Your task to perform on an android device: Show me popular games on the Play Store Image 0: 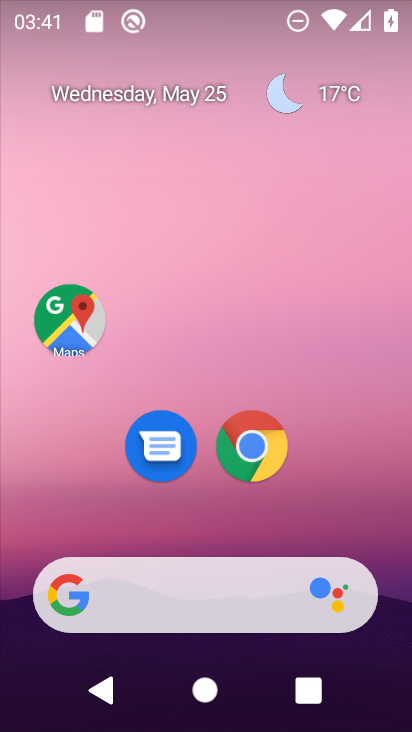
Step 0: drag from (174, 617) to (238, 29)
Your task to perform on an android device: Show me popular games on the Play Store Image 1: 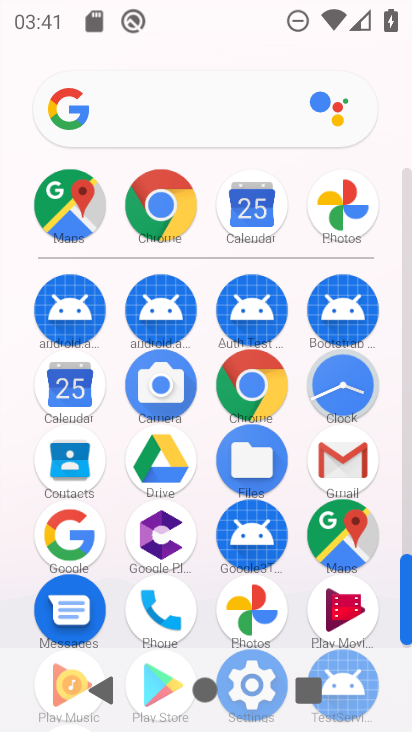
Step 1: drag from (215, 573) to (221, 200)
Your task to perform on an android device: Show me popular games on the Play Store Image 2: 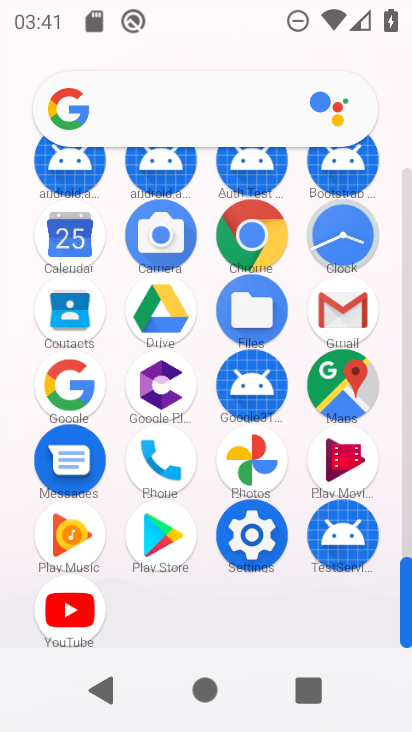
Step 2: click (166, 541)
Your task to perform on an android device: Show me popular games on the Play Store Image 3: 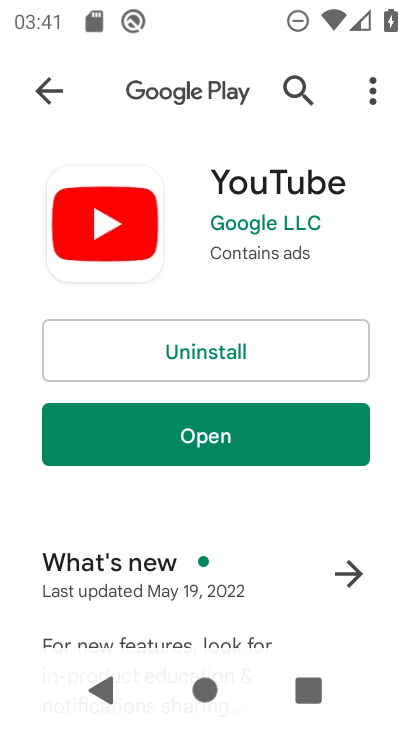
Step 3: click (41, 83)
Your task to perform on an android device: Show me popular games on the Play Store Image 4: 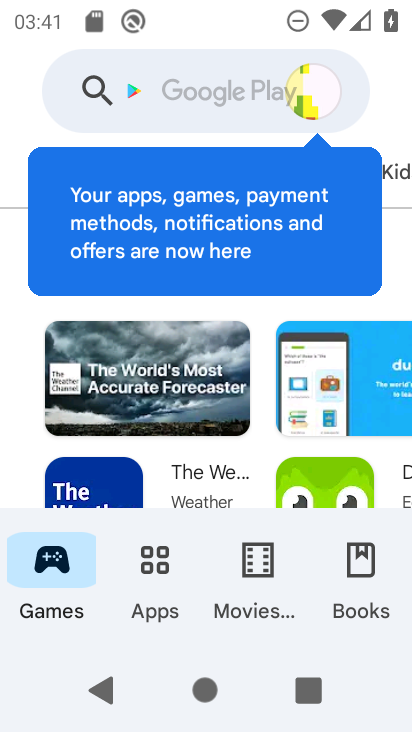
Step 4: drag from (278, 476) to (284, 59)
Your task to perform on an android device: Show me popular games on the Play Store Image 5: 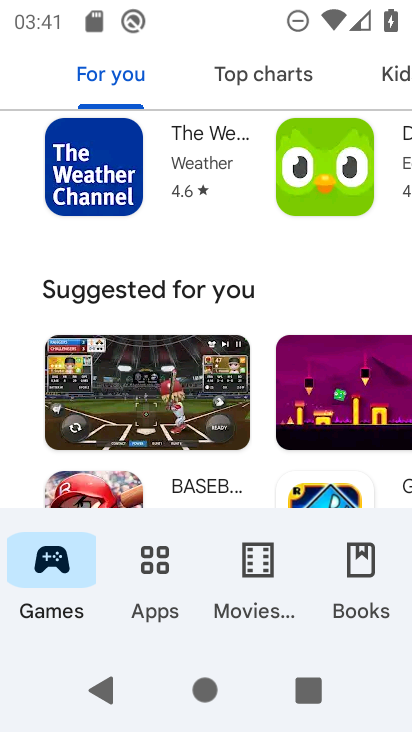
Step 5: drag from (241, 457) to (248, 38)
Your task to perform on an android device: Show me popular games on the Play Store Image 6: 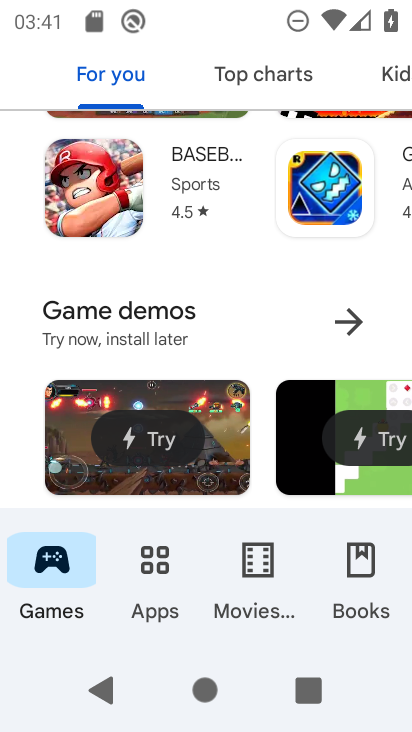
Step 6: drag from (282, 489) to (304, 1)
Your task to perform on an android device: Show me popular games on the Play Store Image 7: 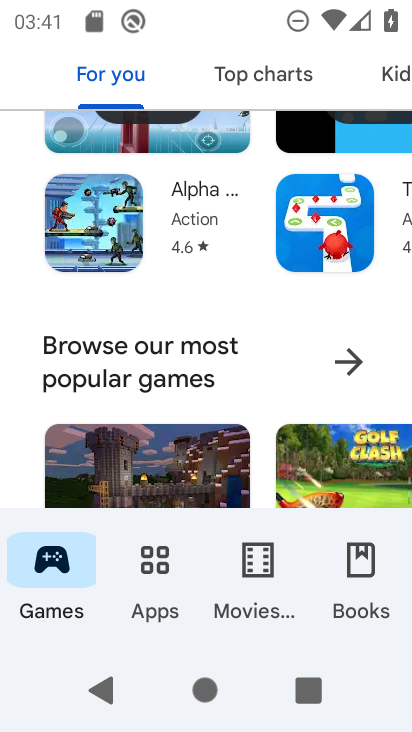
Step 7: click (354, 367)
Your task to perform on an android device: Show me popular games on the Play Store Image 8: 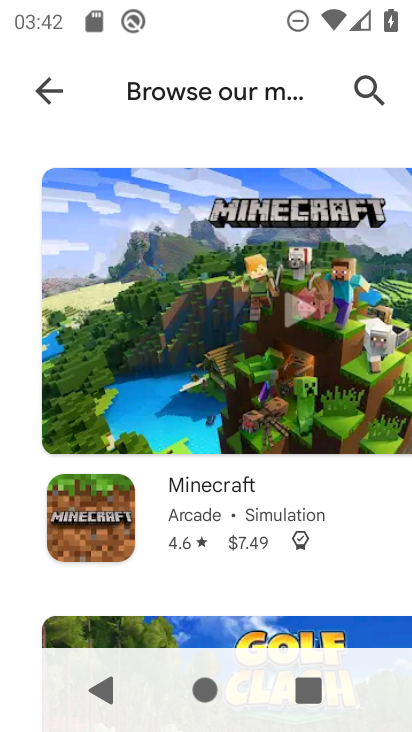
Step 8: task complete